Your task to perform on an android device: clear all cookies in the chrome app Image 0: 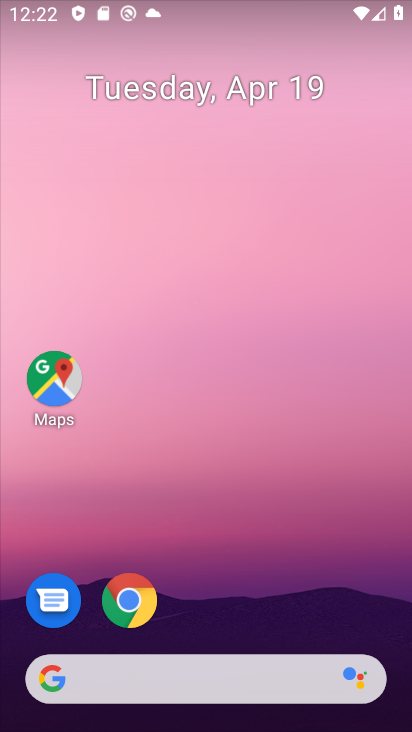
Step 0: drag from (210, 646) to (169, 28)
Your task to perform on an android device: clear all cookies in the chrome app Image 1: 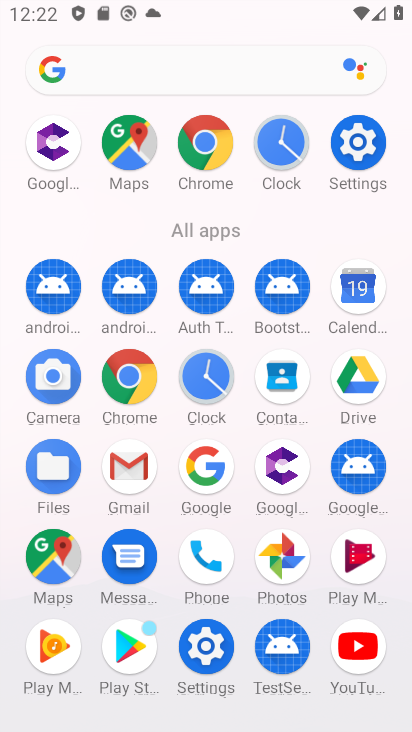
Step 1: click (211, 137)
Your task to perform on an android device: clear all cookies in the chrome app Image 2: 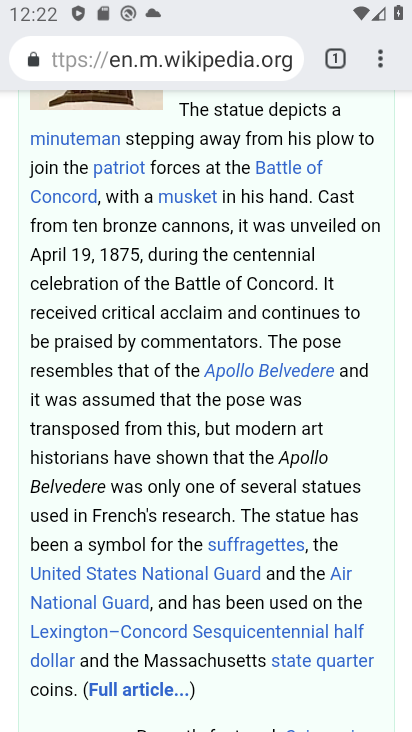
Step 2: click (378, 57)
Your task to perform on an android device: clear all cookies in the chrome app Image 3: 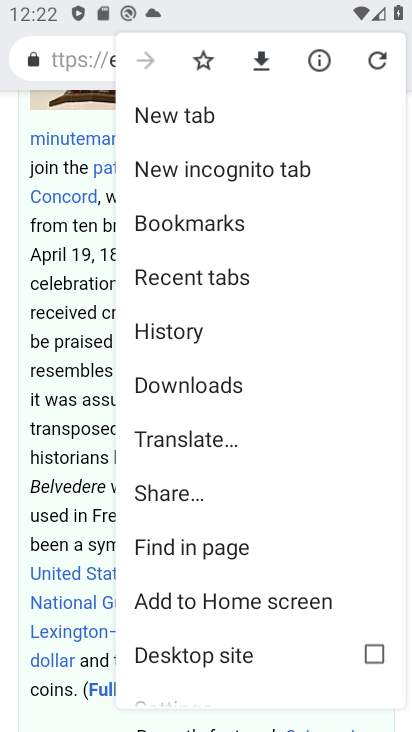
Step 3: drag from (236, 619) to (205, 219)
Your task to perform on an android device: clear all cookies in the chrome app Image 4: 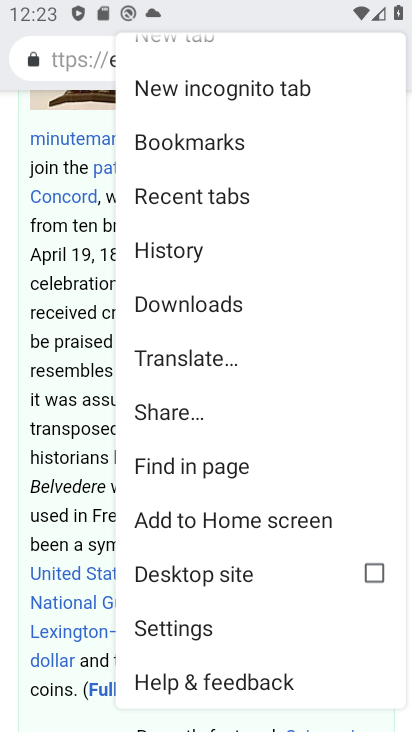
Step 4: click (190, 622)
Your task to perform on an android device: clear all cookies in the chrome app Image 5: 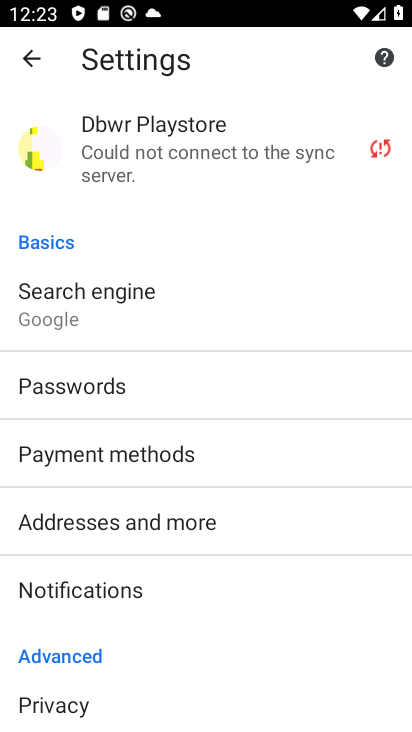
Step 5: drag from (193, 622) to (187, 264)
Your task to perform on an android device: clear all cookies in the chrome app Image 6: 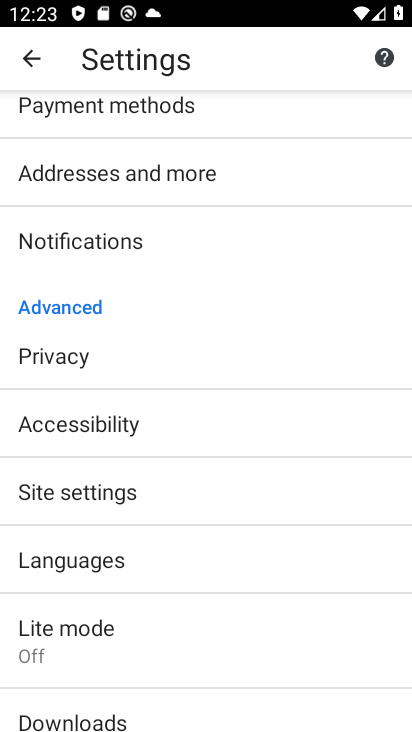
Step 6: click (65, 351)
Your task to perform on an android device: clear all cookies in the chrome app Image 7: 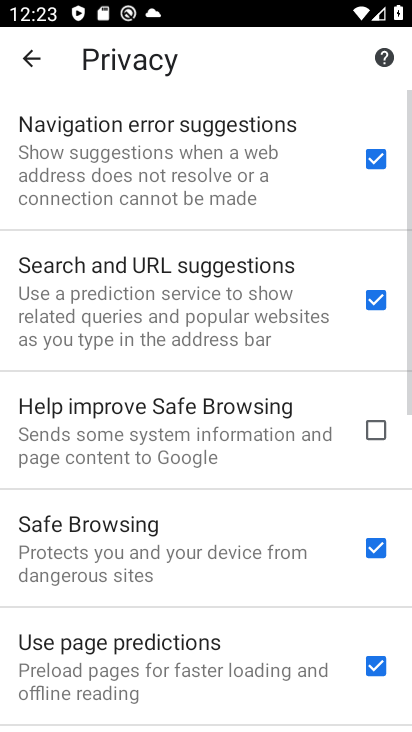
Step 7: drag from (163, 672) to (147, 150)
Your task to perform on an android device: clear all cookies in the chrome app Image 8: 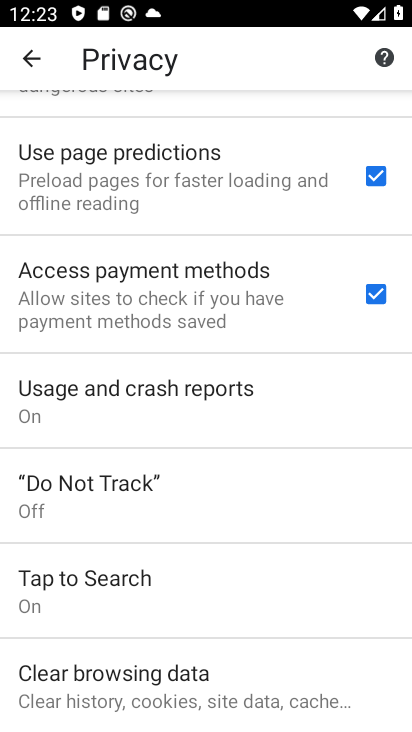
Step 8: click (133, 653)
Your task to perform on an android device: clear all cookies in the chrome app Image 9: 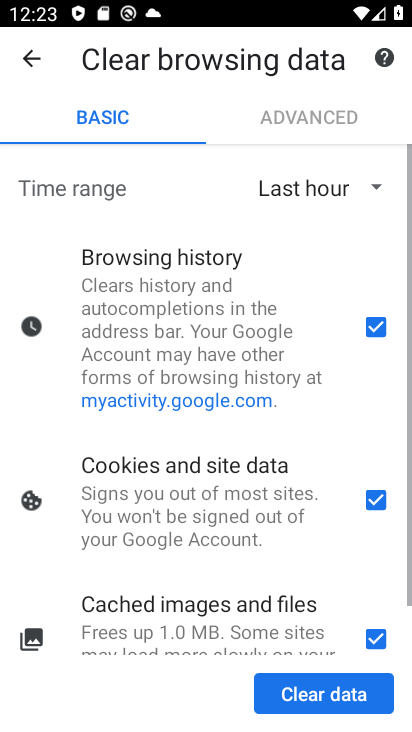
Step 9: drag from (179, 574) to (140, 114)
Your task to perform on an android device: clear all cookies in the chrome app Image 10: 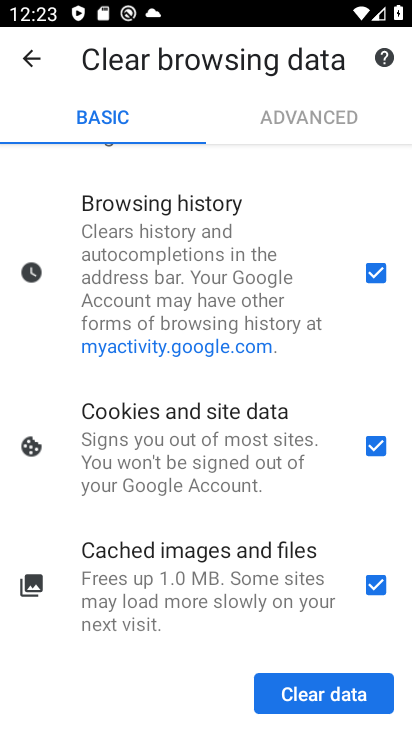
Step 10: click (300, 693)
Your task to perform on an android device: clear all cookies in the chrome app Image 11: 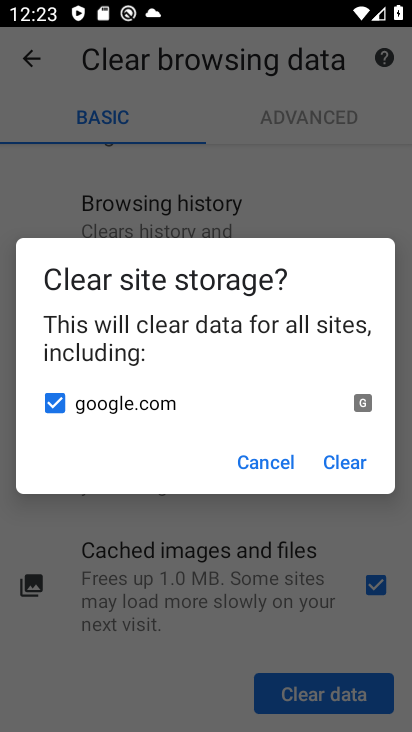
Step 11: click (339, 460)
Your task to perform on an android device: clear all cookies in the chrome app Image 12: 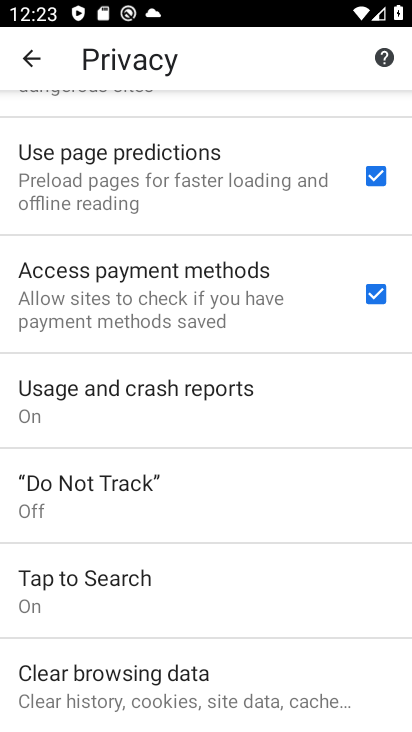
Step 12: task complete